Your task to perform on an android device: empty trash in google photos Image 0: 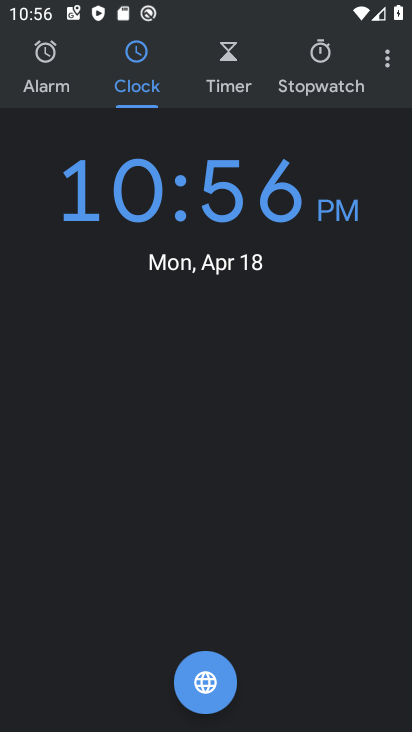
Step 0: press home button
Your task to perform on an android device: empty trash in google photos Image 1: 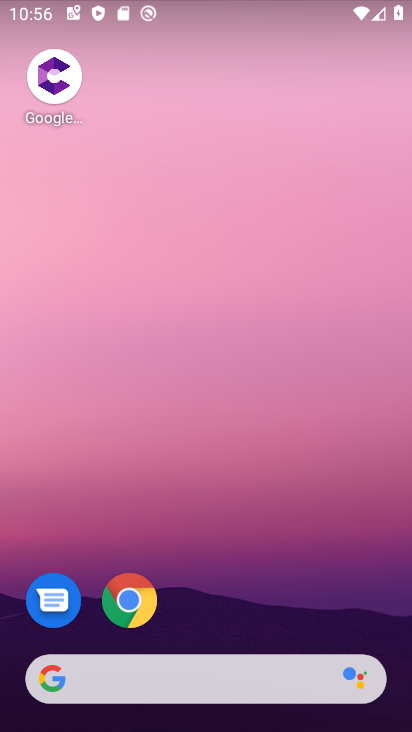
Step 1: drag from (220, 574) to (230, 149)
Your task to perform on an android device: empty trash in google photos Image 2: 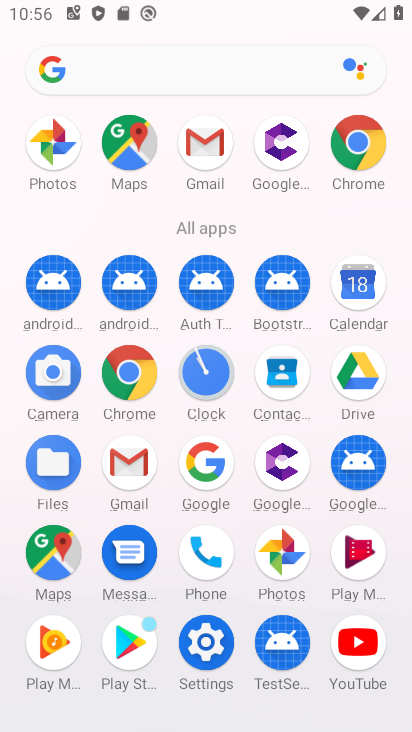
Step 2: click (279, 546)
Your task to perform on an android device: empty trash in google photos Image 3: 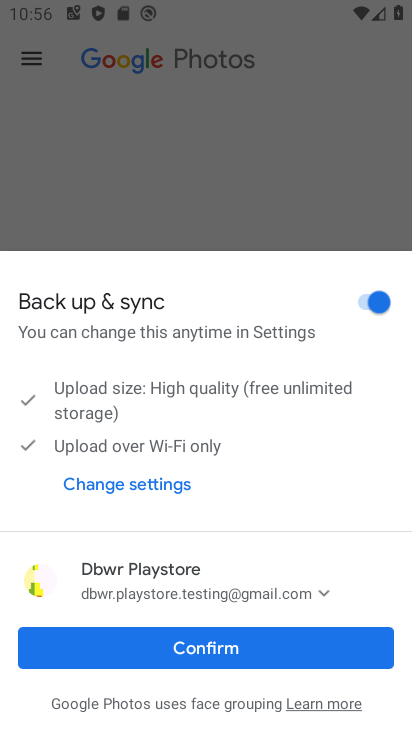
Step 3: click (175, 636)
Your task to perform on an android device: empty trash in google photos Image 4: 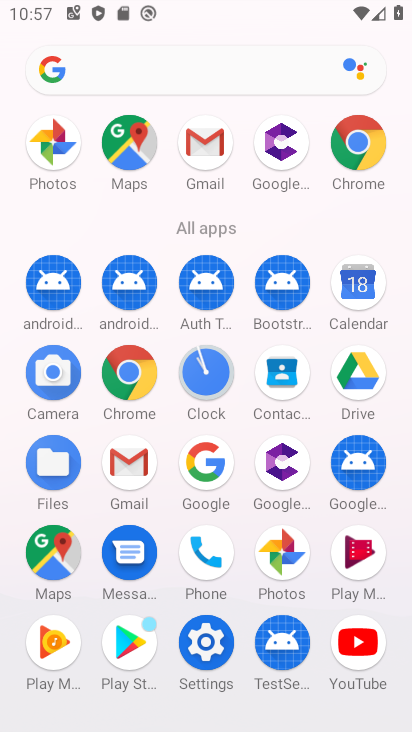
Step 4: click (278, 556)
Your task to perform on an android device: empty trash in google photos Image 5: 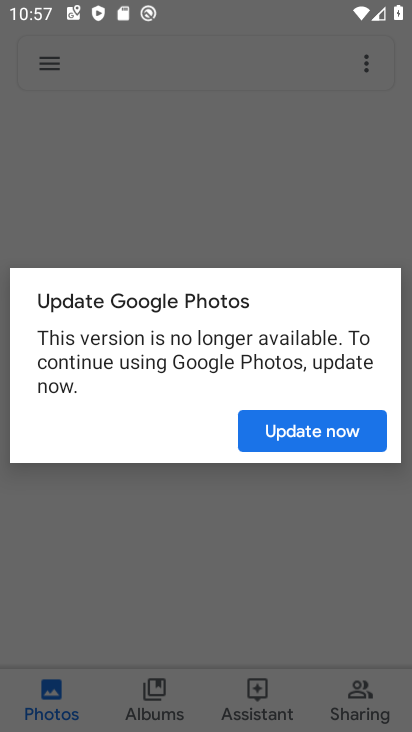
Step 5: click (319, 432)
Your task to perform on an android device: empty trash in google photos Image 6: 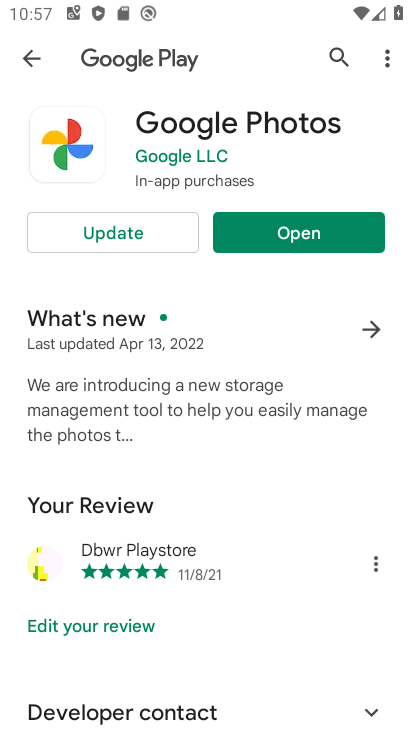
Step 6: click (151, 232)
Your task to perform on an android device: empty trash in google photos Image 7: 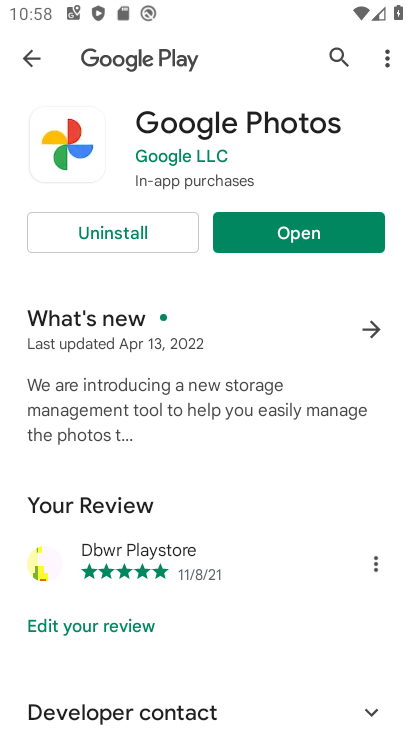
Step 7: click (272, 243)
Your task to perform on an android device: empty trash in google photos Image 8: 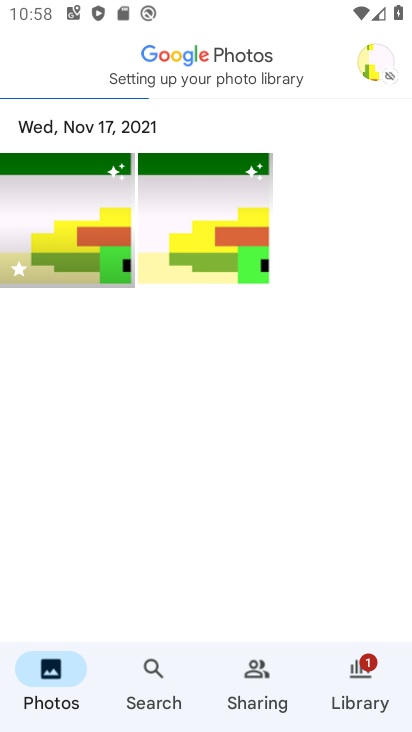
Step 8: click (370, 61)
Your task to perform on an android device: empty trash in google photos Image 9: 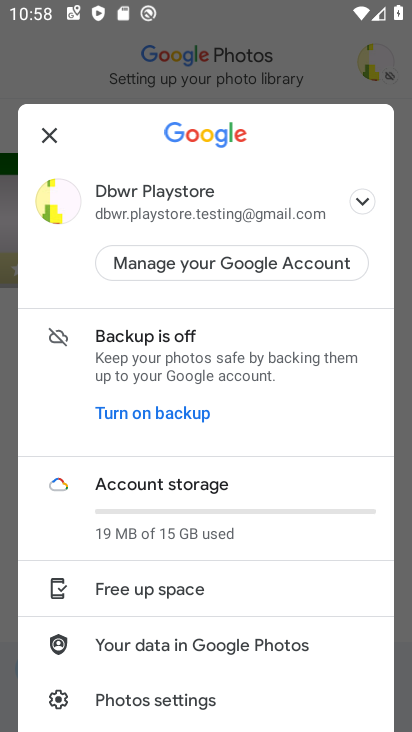
Step 9: click (255, 72)
Your task to perform on an android device: empty trash in google photos Image 10: 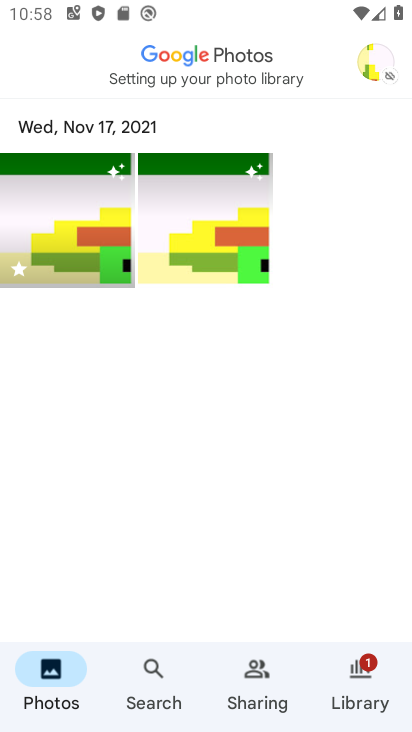
Step 10: click (345, 688)
Your task to perform on an android device: empty trash in google photos Image 11: 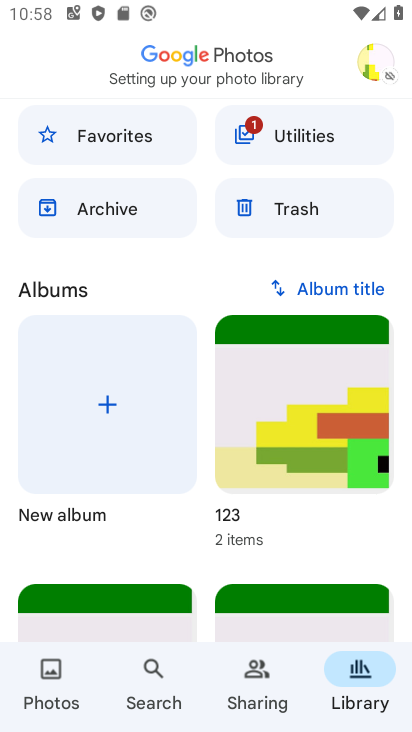
Step 11: click (308, 216)
Your task to perform on an android device: empty trash in google photos Image 12: 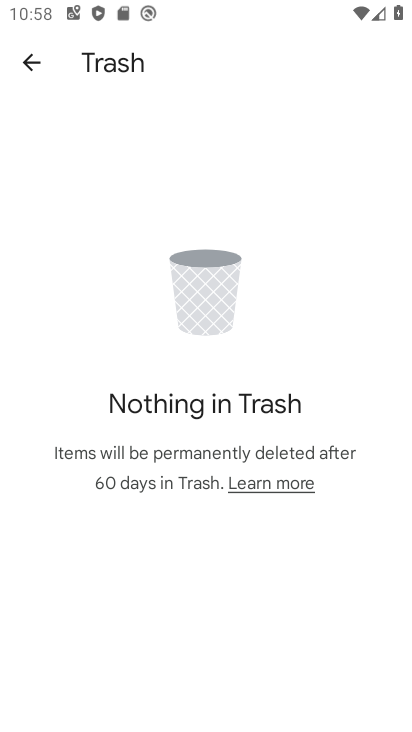
Step 12: task complete